Your task to perform on an android device: read, delete, or share a saved page in the chrome app Image 0: 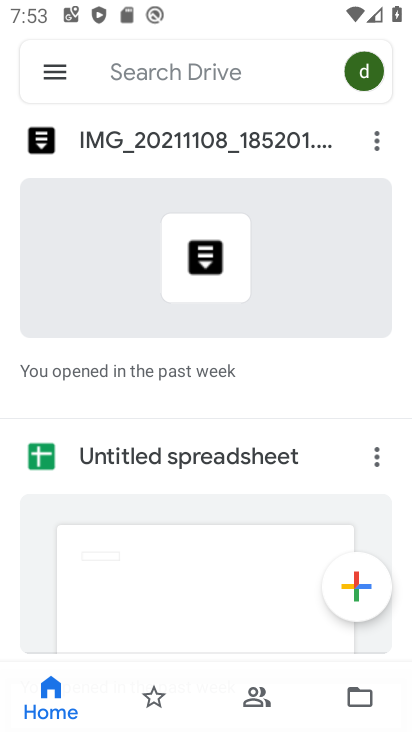
Step 0: press home button
Your task to perform on an android device: read, delete, or share a saved page in the chrome app Image 1: 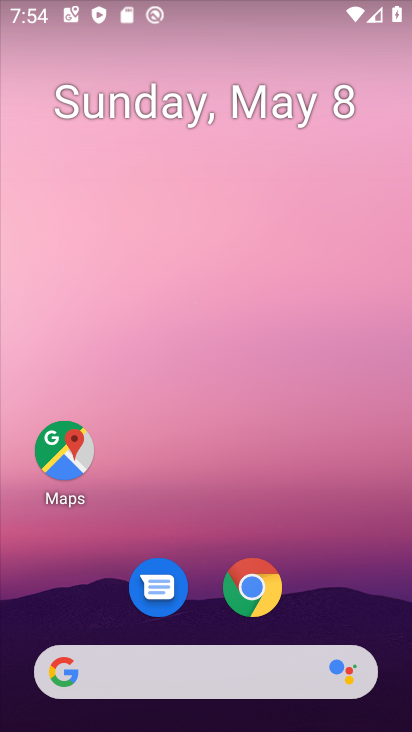
Step 1: click (251, 587)
Your task to perform on an android device: read, delete, or share a saved page in the chrome app Image 2: 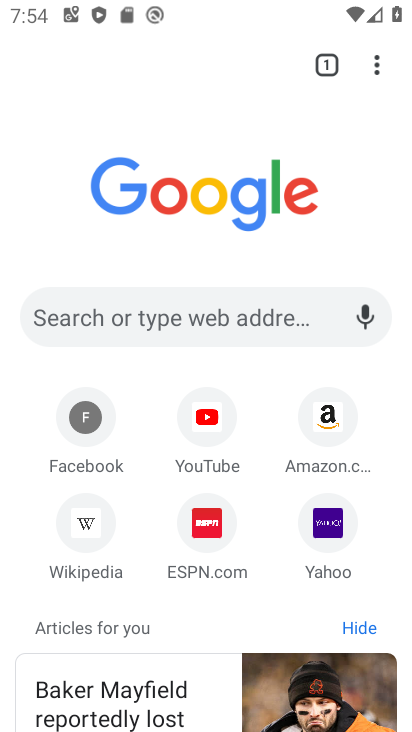
Step 2: click (378, 64)
Your task to perform on an android device: read, delete, or share a saved page in the chrome app Image 3: 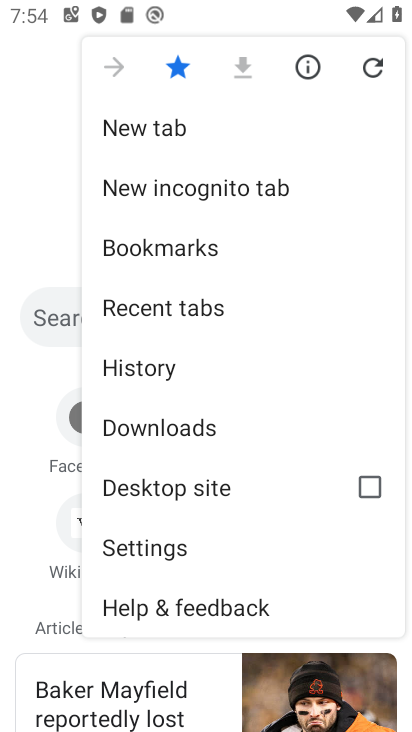
Step 3: click (153, 428)
Your task to perform on an android device: read, delete, or share a saved page in the chrome app Image 4: 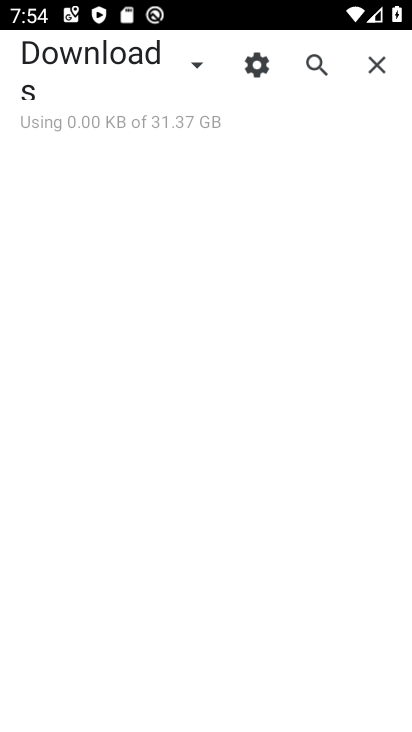
Step 4: click (196, 65)
Your task to perform on an android device: read, delete, or share a saved page in the chrome app Image 5: 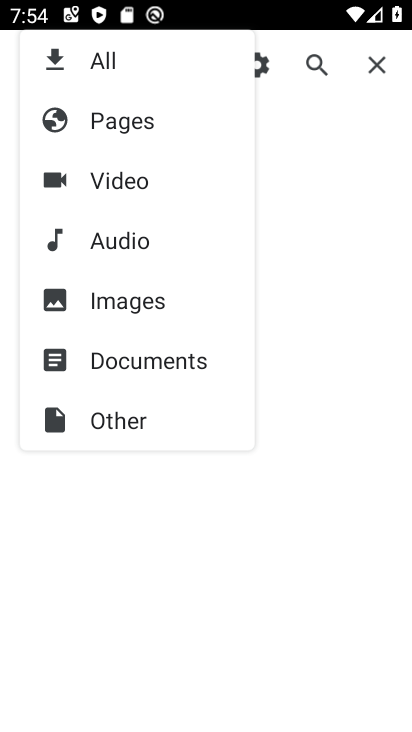
Step 5: click (121, 131)
Your task to perform on an android device: read, delete, or share a saved page in the chrome app Image 6: 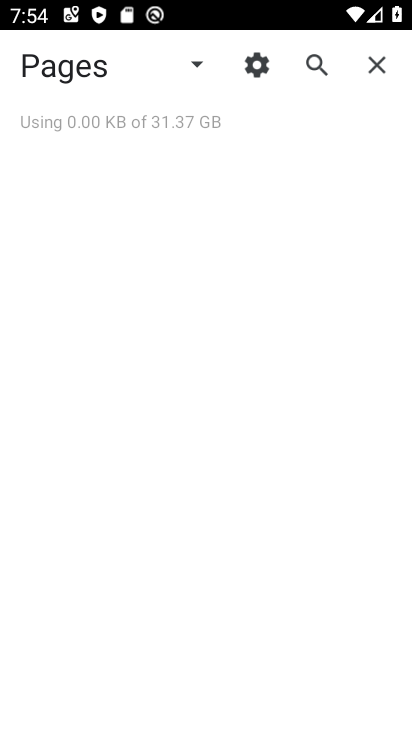
Step 6: click (200, 61)
Your task to perform on an android device: read, delete, or share a saved page in the chrome app Image 7: 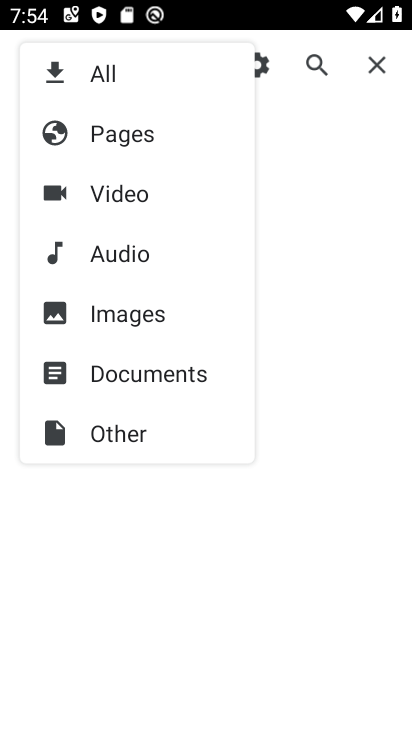
Step 7: click (124, 77)
Your task to perform on an android device: read, delete, or share a saved page in the chrome app Image 8: 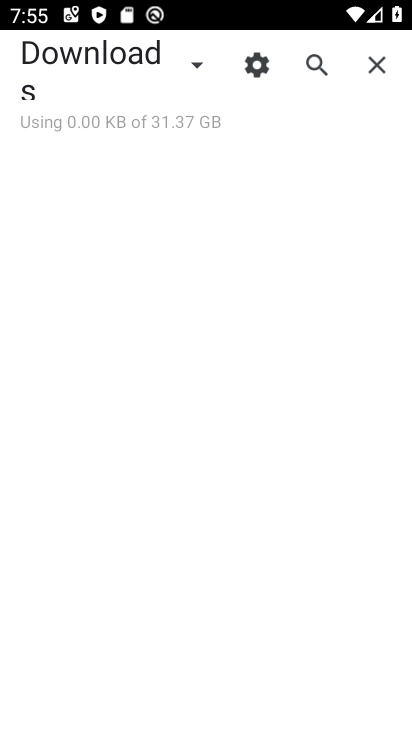
Step 8: task complete